Your task to perform on an android device: turn notification dots on Image 0: 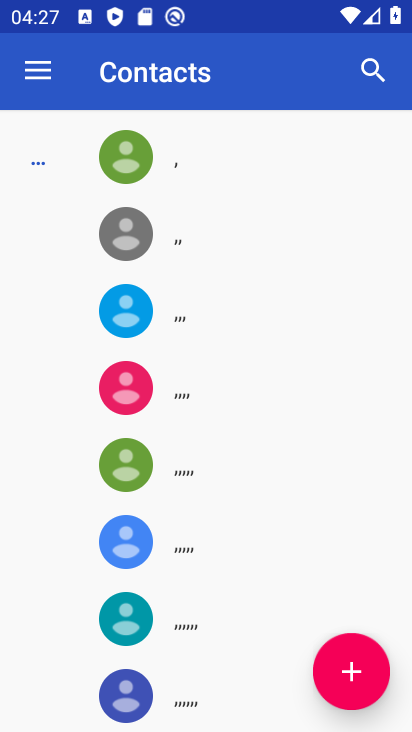
Step 0: press home button
Your task to perform on an android device: turn notification dots on Image 1: 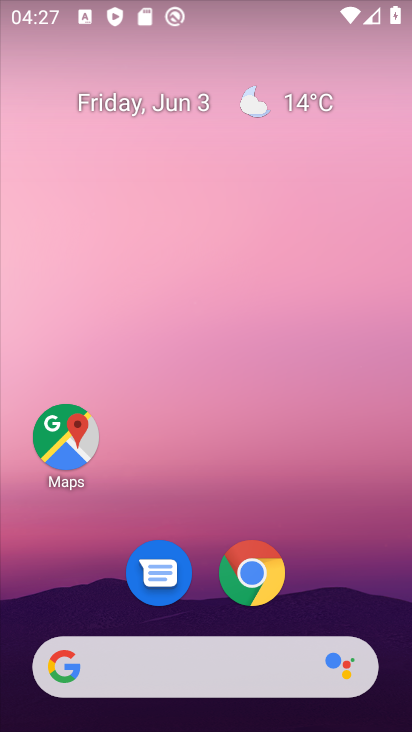
Step 1: drag from (357, 537) to (369, 43)
Your task to perform on an android device: turn notification dots on Image 2: 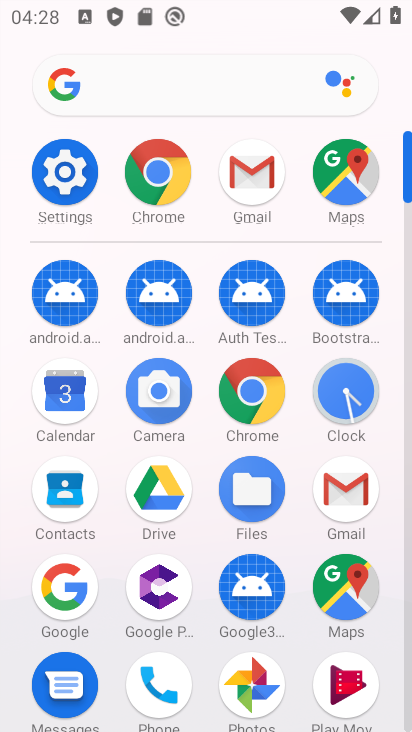
Step 2: click (77, 184)
Your task to perform on an android device: turn notification dots on Image 3: 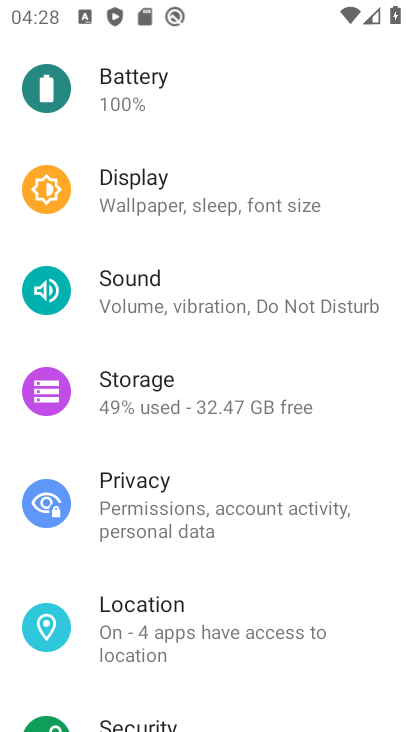
Step 3: drag from (228, 342) to (250, 719)
Your task to perform on an android device: turn notification dots on Image 4: 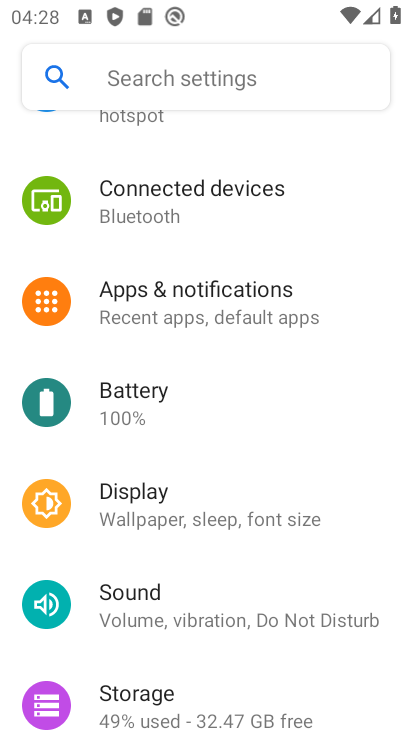
Step 4: click (228, 296)
Your task to perform on an android device: turn notification dots on Image 5: 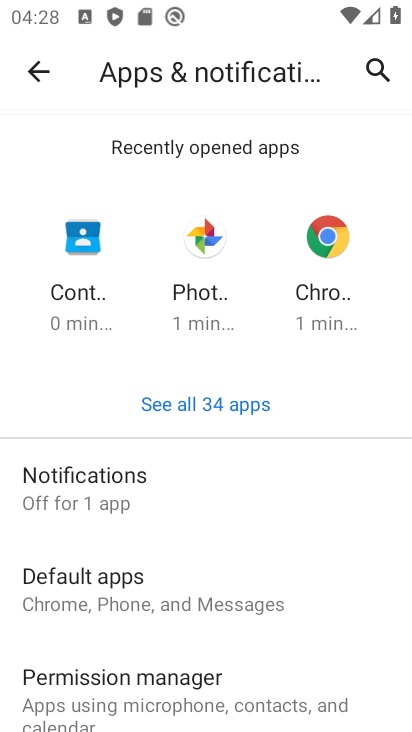
Step 5: click (203, 487)
Your task to perform on an android device: turn notification dots on Image 6: 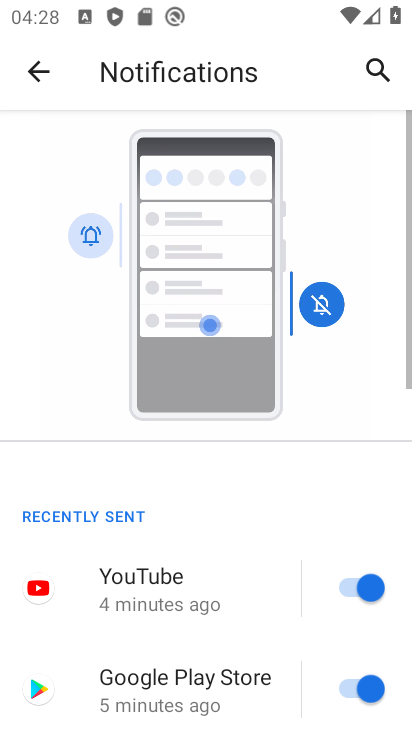
Step 6: drag from (247, 600) to (311, 72)
Your task to perform on an android device: turn notification dots on Image 7: 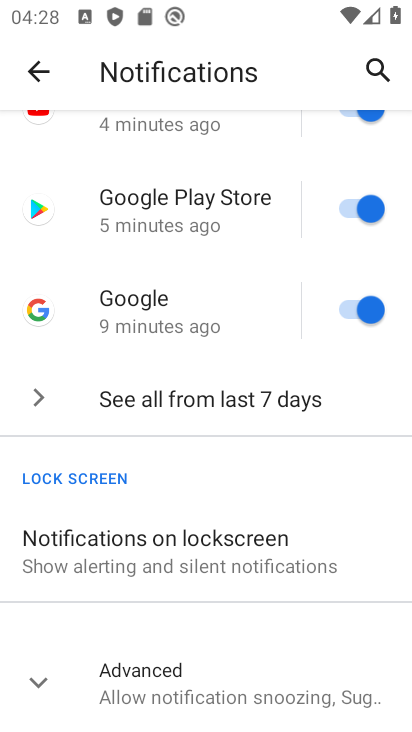
Step 7: click (251, 697)
Your task to perform on an android device: turn notification dots on Image 8: 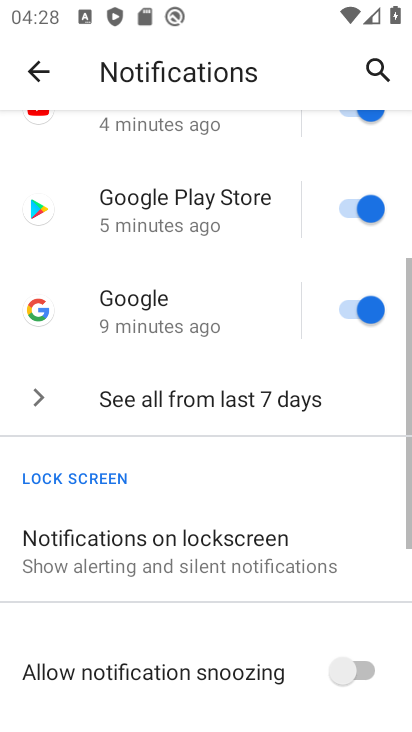
Step 8: task complete